Your task to perform on an android device: Open the calendar and show me this week's events Image 0: 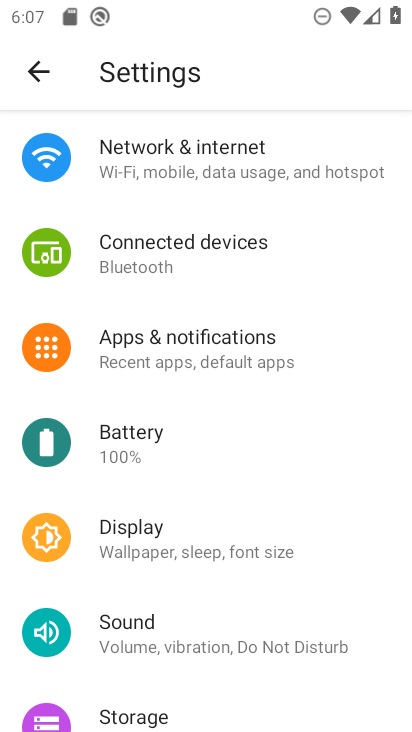
Step 0: press home button
Your task to perform on an android device: Open the calendar and show me this week's events Image 1: 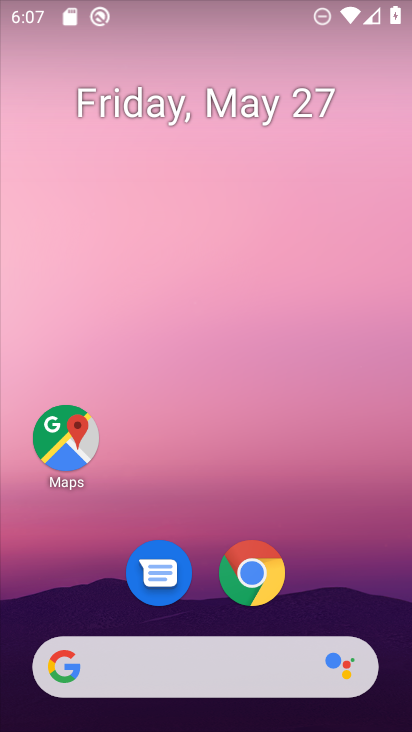
Step 1: drag from (201, 614) to (194, 77)
Your task to perform on an android device: Open the calendar and show me this week's events Image 2: 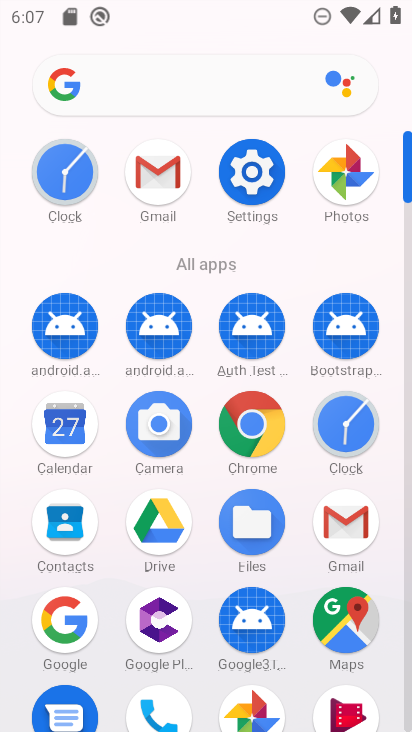
Step 2: click (68, 431)
Your task to perform on an android device: Open the calendar and show me this week's events Image 3: 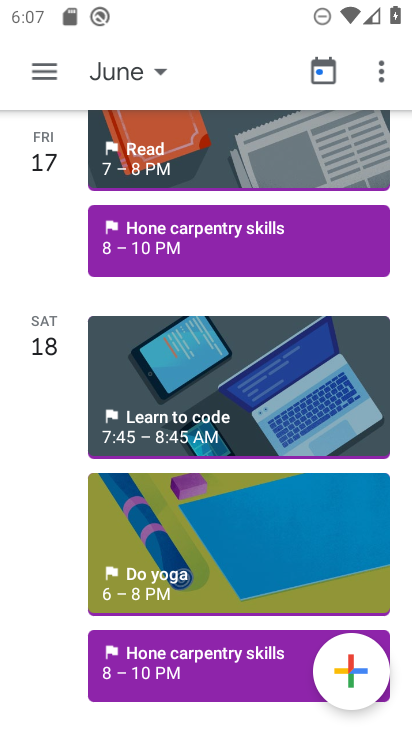
Step 3: drag from (71, 511) to (92, 219)
Your task to perform on an android device: Open the calendar and show me this week's events Image 4: 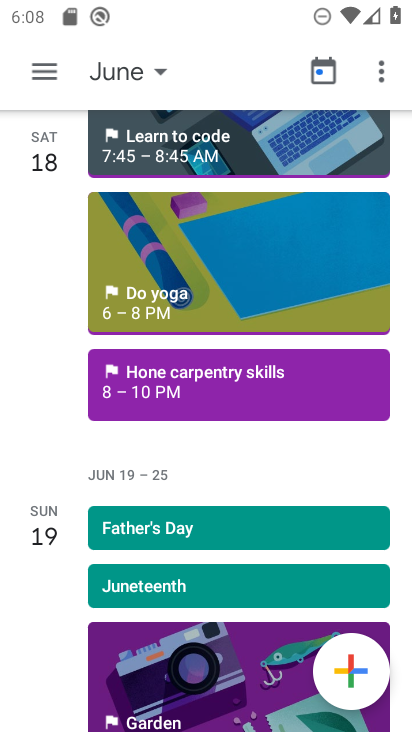
Step 4: drag from (44, 621) to (66, 222)
Your task to perform on an android device: Open the calendar and show me this week's events Image 5: 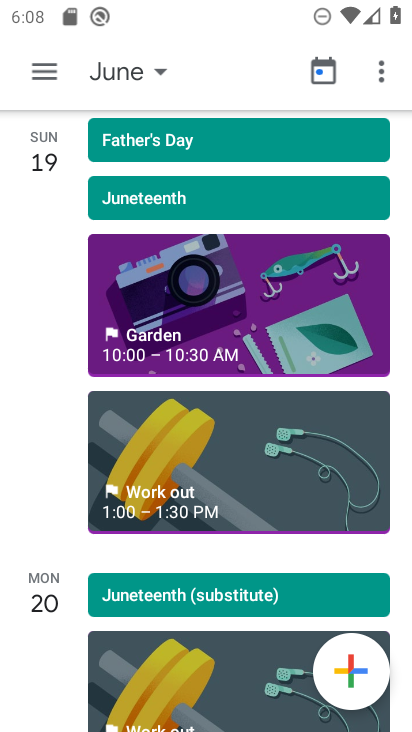
Step 5: click (52, 65)
Your task to perform on an android device: Open the calendar and show me this week's events Image 6: 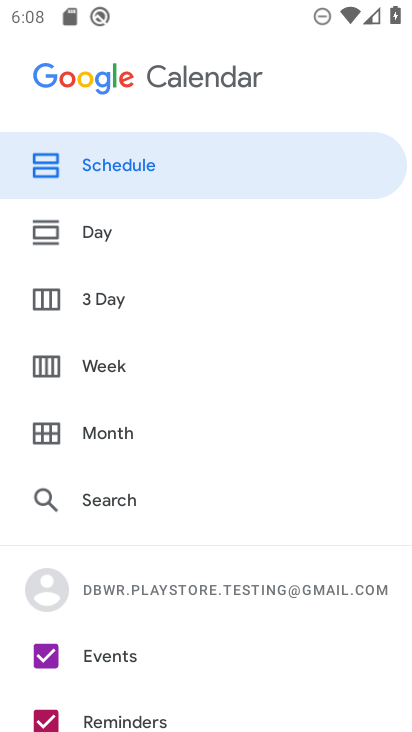
Step 6: click (93, 366)
Your task to perform on an android device: Open the calendar and show me this week's events Image 7: 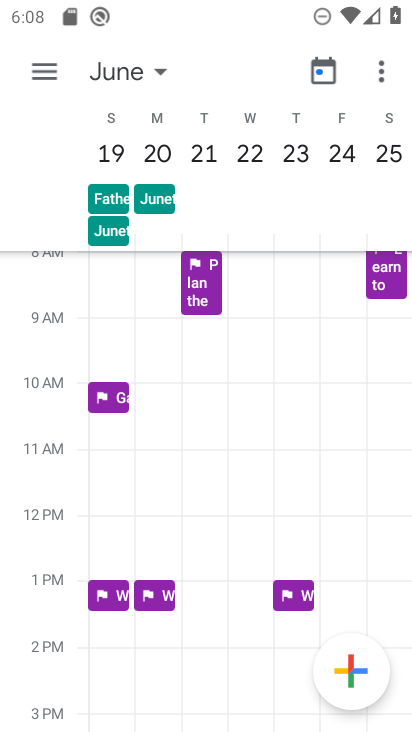
Step 7: drag from (110, 158) to (401, 152)
Your task to perform on an android device: Open the calendar and show me this week's events Image 8: 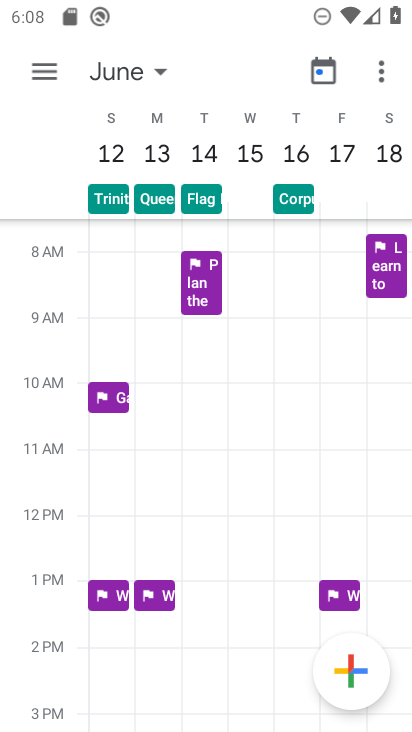
Step 8: drag from (117, 151) to (374, 154)
Your task to perform on an android device: Open the calendar and show me this week's events Image 9: 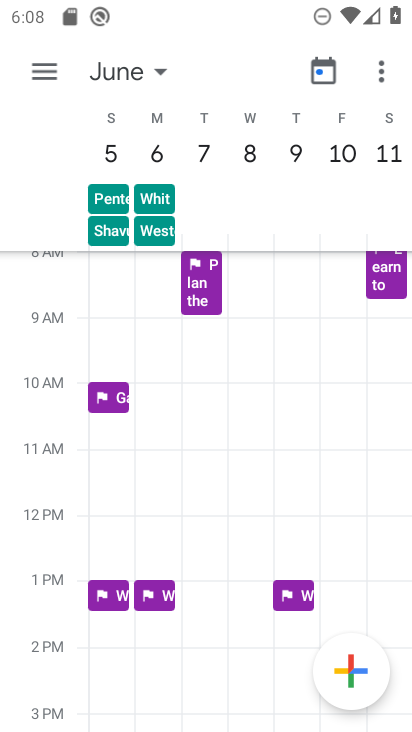
Step 9: drag from (110, 148) to (411, 158)
Your task to perform on an android device: Open the calendar and show me this week's events Image 10: 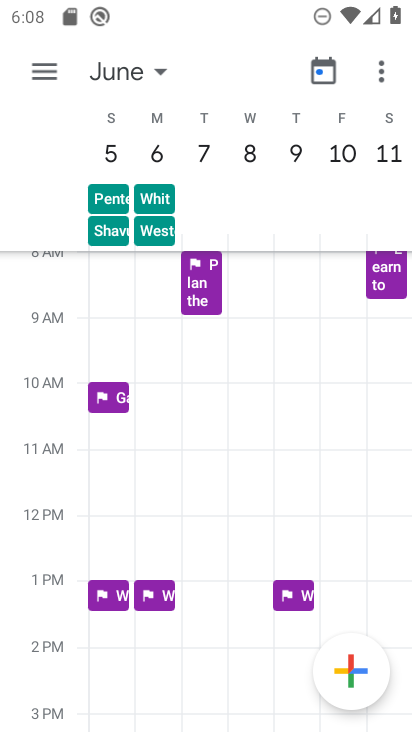
Step 10: drag from (106, 148) to (404, 153)
Your task to perform on an android device: Open the calendar and show me this week's events Image 11: 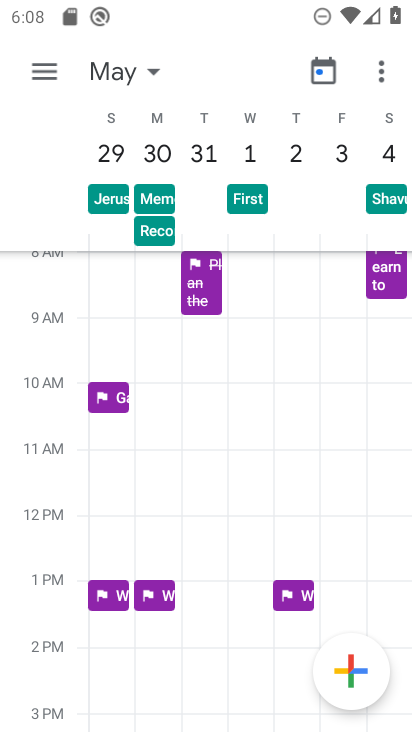
Step 11: drag from (107, 148) to (408, 156)
Your task to perform on an android device: Open the calendar and show me this week's events Image 12: 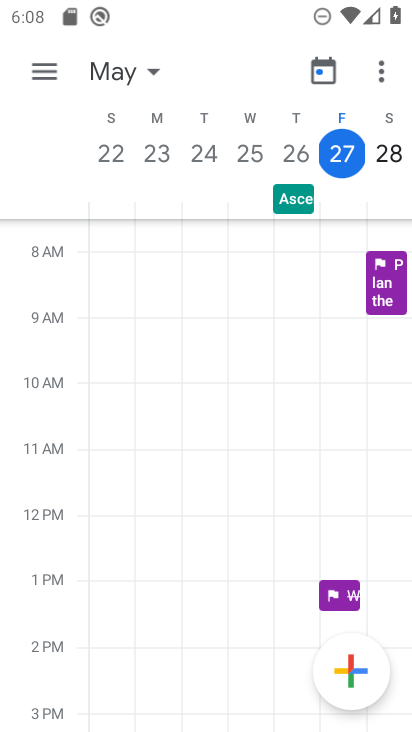
Step 12: click (338, 156)
Your task to perform on an android device: Open the calendar and show me this week's events Image 13: 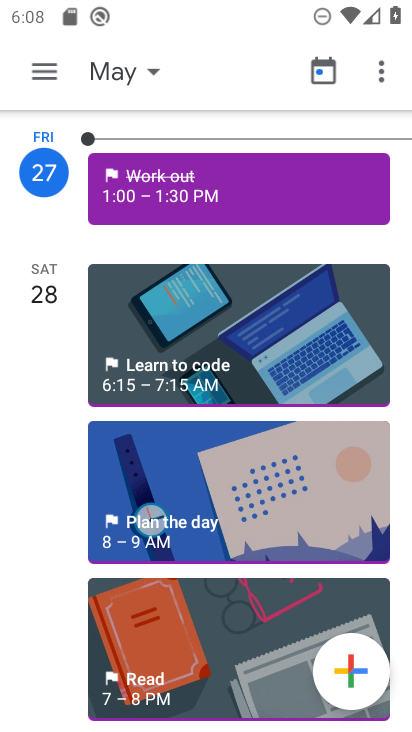
Step 13: task complete